Your task to perform on an android device: turn off airplane mode Image 0: 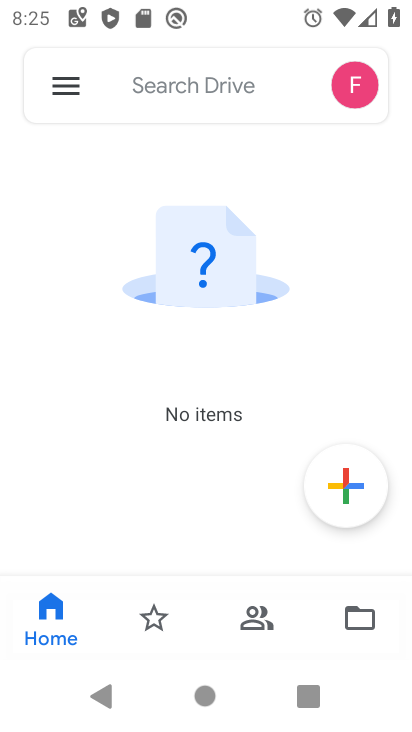
Step 0: press back button
Your task to perform on an android device: turn off airplane mode Image 1: 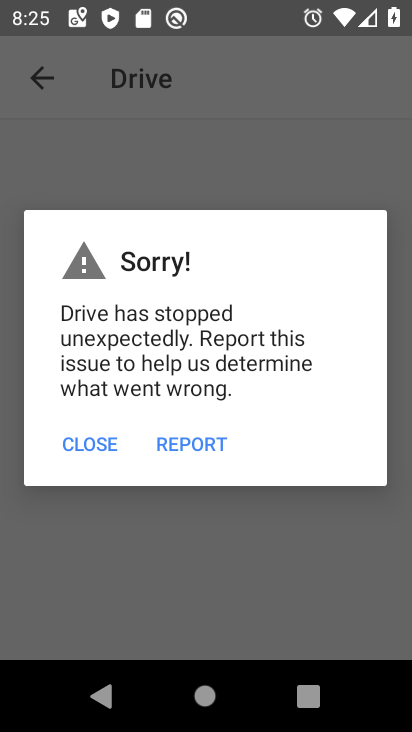
Step 1: click (89, 433)
Your task to perform on an android device: turn off airplane mode Image 2: 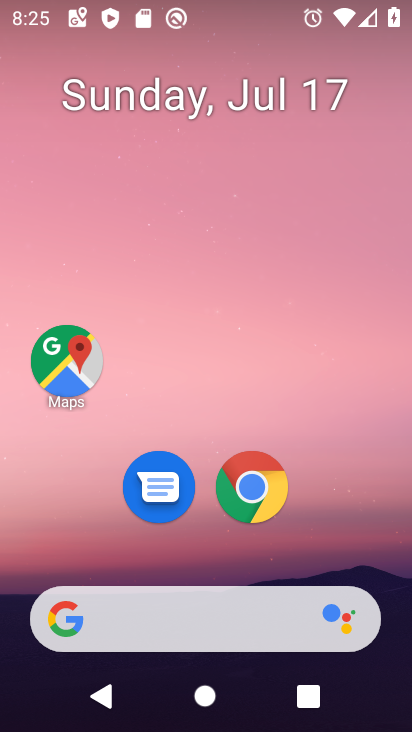
Step 2: task complete